Your task to perform on an android device: Go to Wikipedia Image 0: 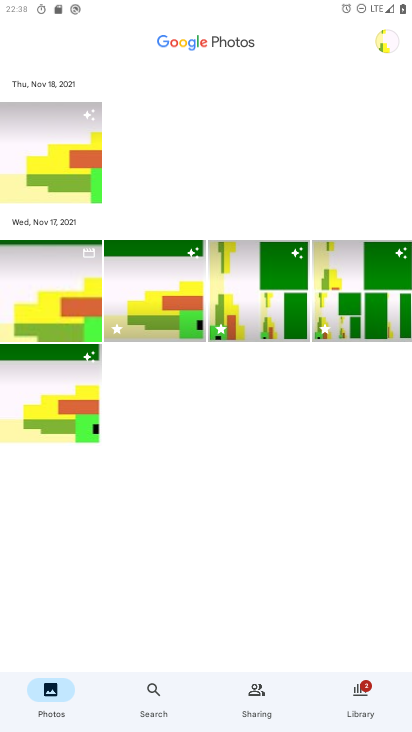
Step 0: press home button
Your task to perform on an android device: Go to Wikipedia Image 1: 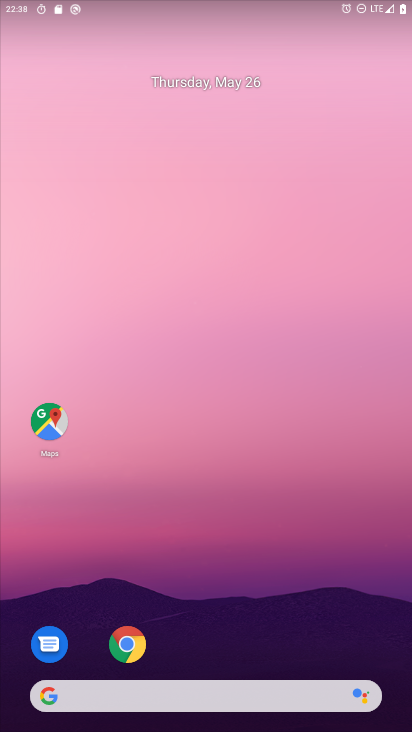
Step 1: drag from (180, 651) to (210, 17)
Your task to perform on an android device: Go to Wikipedia Image 2: 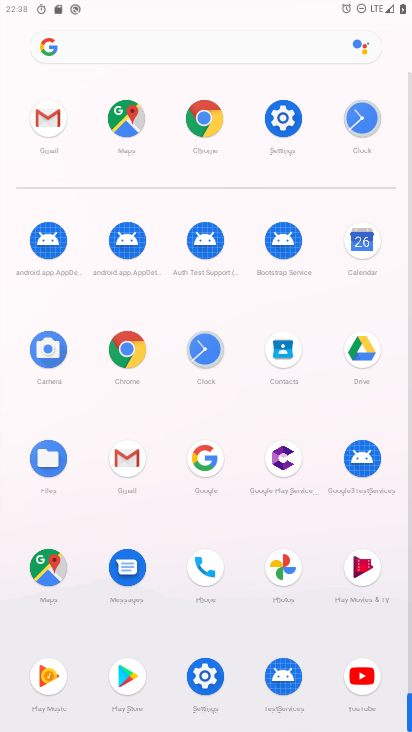
Step 2: click (132, 46)
Your task to perform on an android device: Go to Wikipedia Image 3: 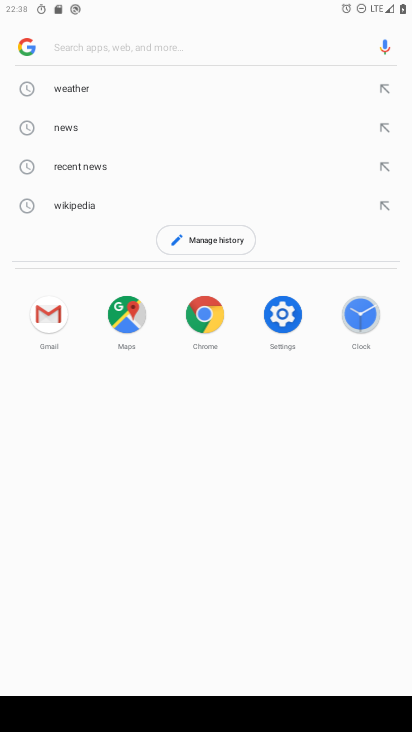
Step 3: click (78, 201)
Your task to perform on an android device: Go to Wikipedia Image 4: 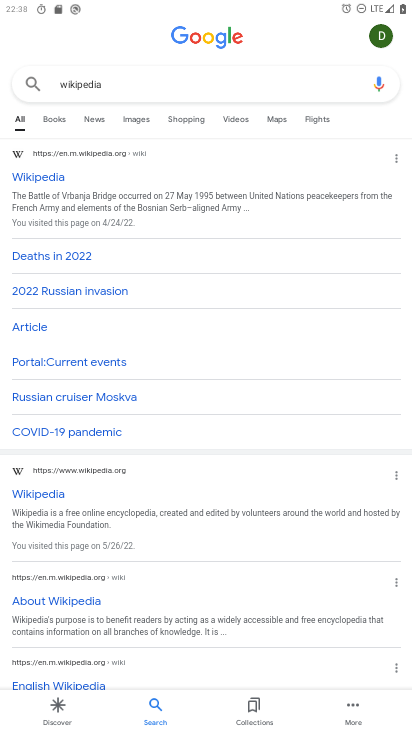
Step 4: click (36, 176)
Your task to perform on an android device: Go to Wikipedia Image 5: 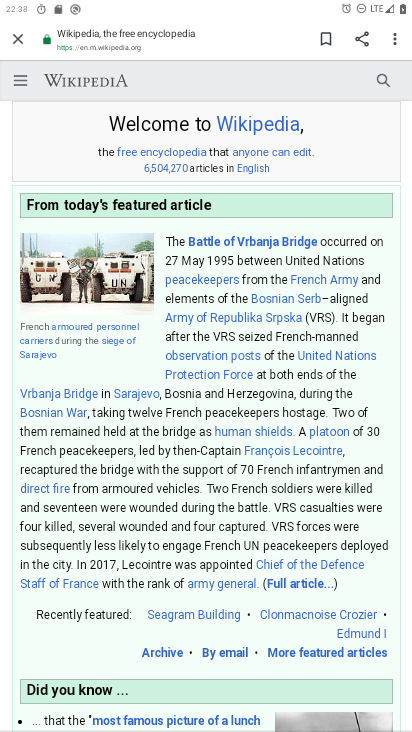
Step 5: task complete